Your task to perform on an android device: Search for sushi restaurants on Maps Image 0: 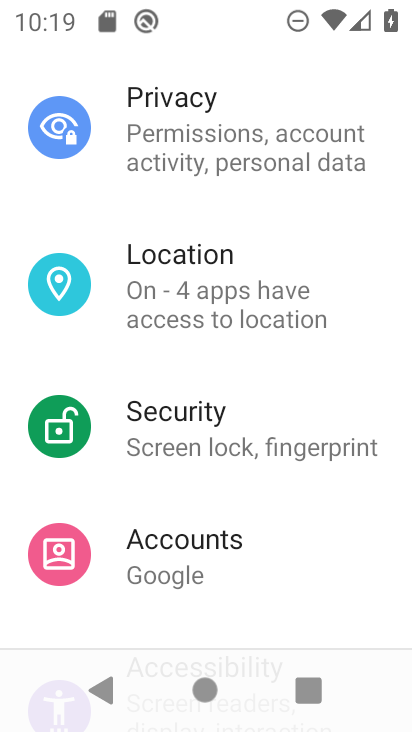
Step 0: press home button
Your task to perform on an android device: Search for sushi restaurants on Maps Image 1: 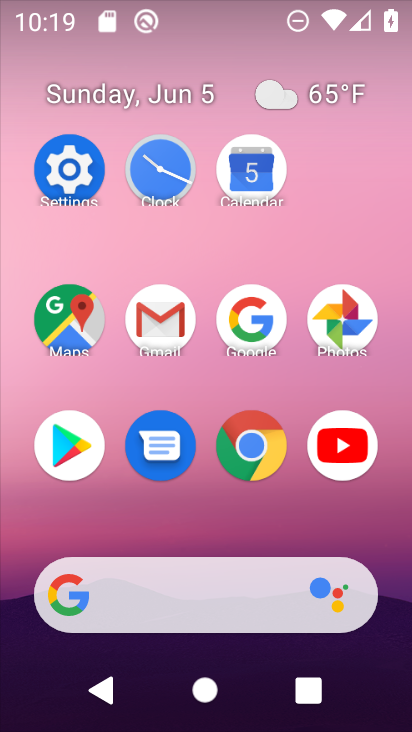
Step 1: click (99, 330)
Your task to perform on an android device: Search for sushi restaurants on Maps Image 2: 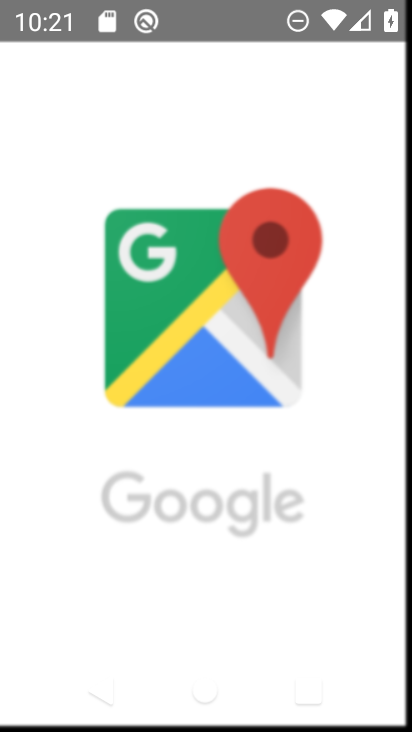
Step 2: task complete